Your task to perform on an android device: find which apps use the phone's location Image 0: 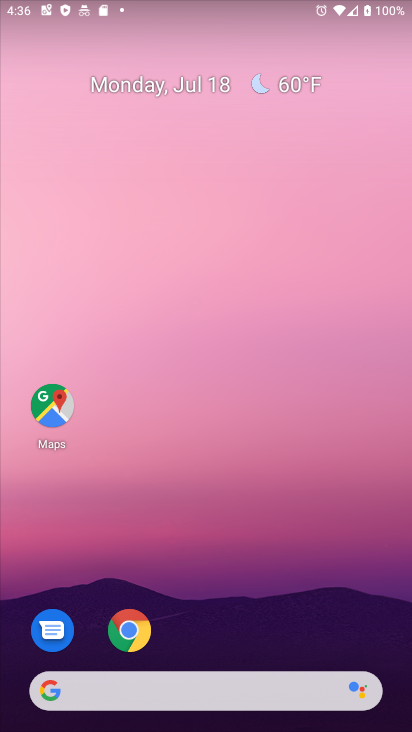
Step 0: drag from (312, 664) to (245, 185)
Your task to perform on an android device: find which apps use the phone's location Image 1: 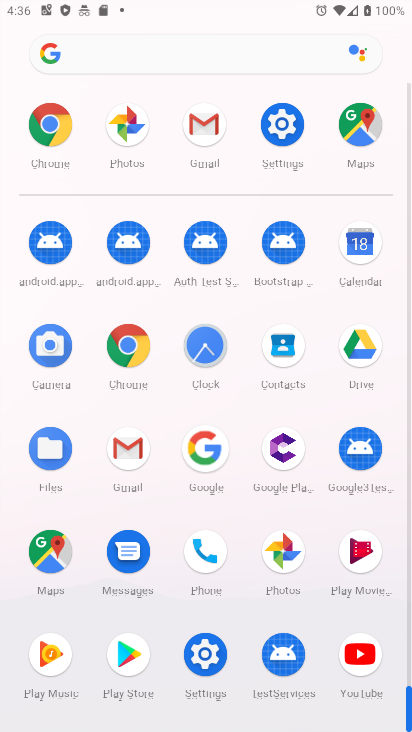
Step 1: click (292, 126)
Your task to perform on an android device: find which apps use the phone's location Image 2: 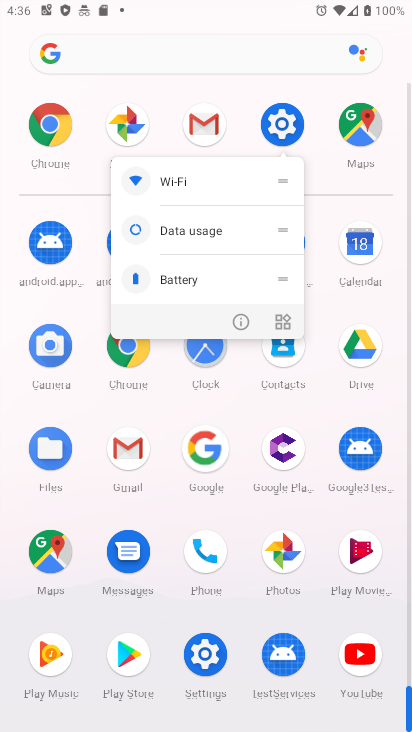
Step 2: click (275, 127)
Your task to perform on an android device: find which apps use the phone's location Image 3: 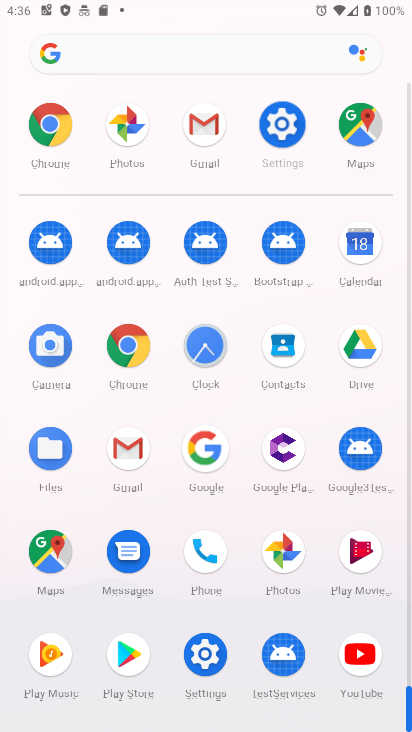
Step 3: click (275, 127)
Your task to perform on an android device: find which apps use the phone's location Image 4: 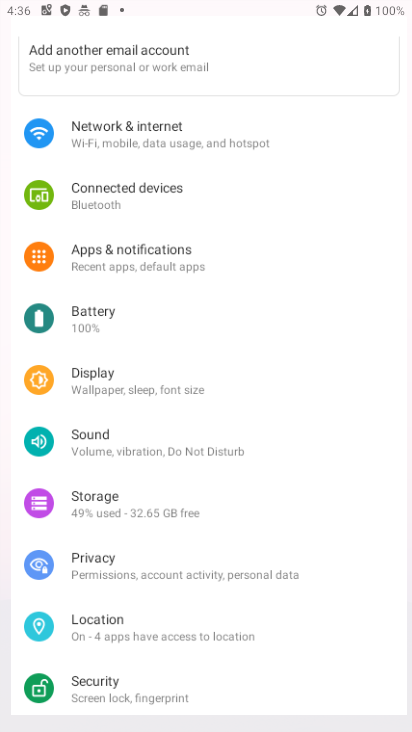
Step 4: click (281, 118)
Your task to perform on an android device: find which apps use the phone's location Image 5: 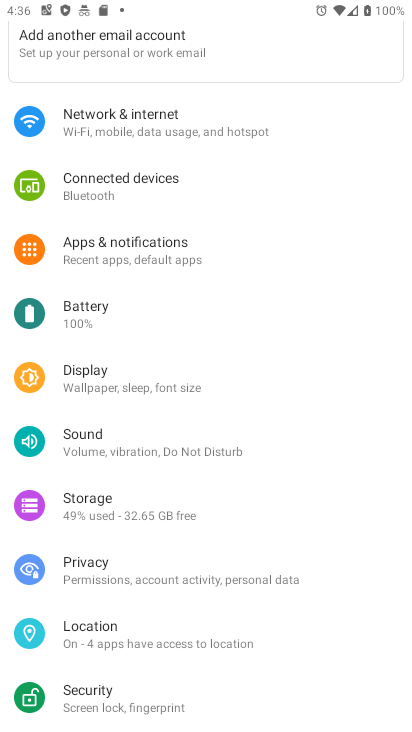
Step 5: click (281, 118)
Your task to perform on an android device: find which apps use the phone's location Image 6: 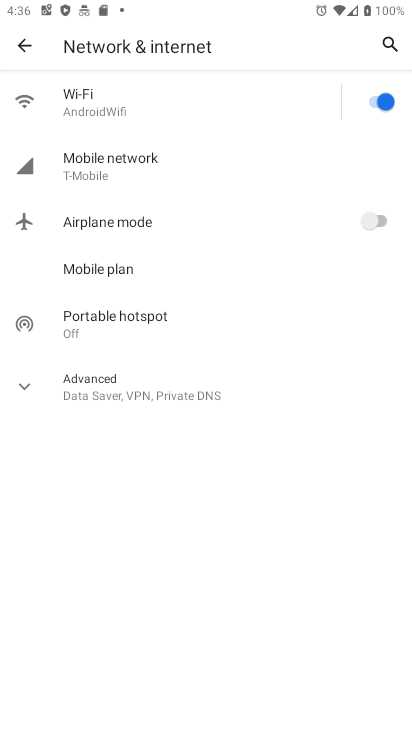
Step 6: click (11, 47)
Your task to perform on an android device: find which apps use the phone's location Image 7: 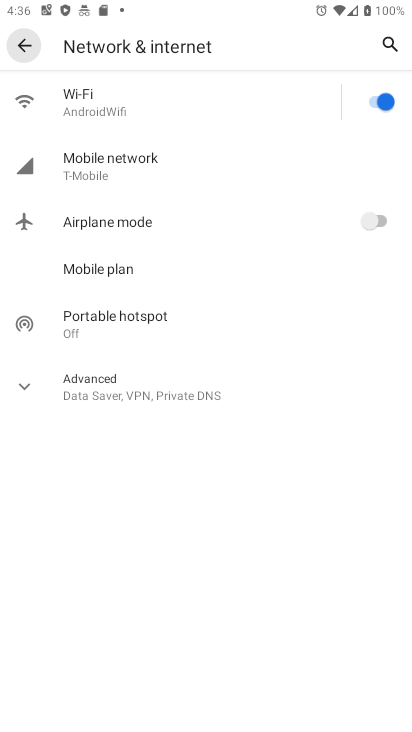
Step 7: click (10, 47)
Your task to perform on an android device: find which apps use the phone's location Image 8: 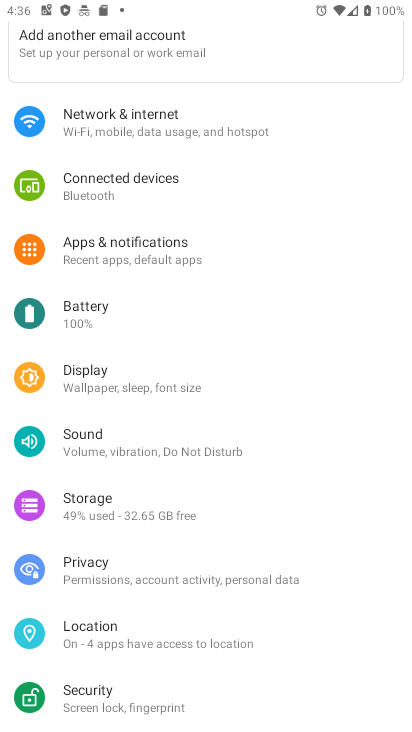
Step 8: click (86, 630)
Your task to perform on an android device: find which apps use the phone's location Image 9: 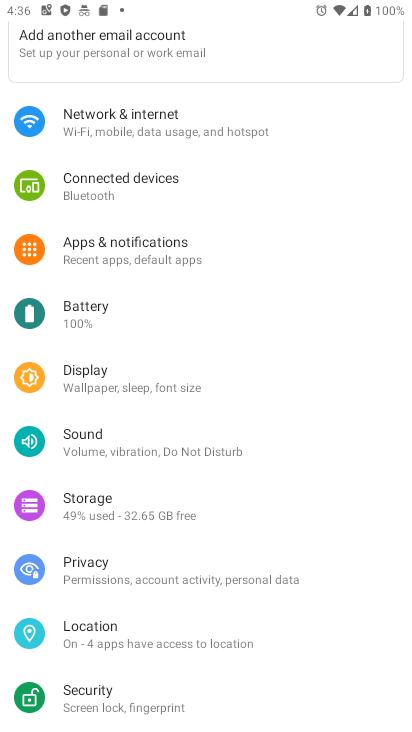
Step 9: click (89, 621)
Your task to perform on an android device: find which apps use the phone's location Image 10: 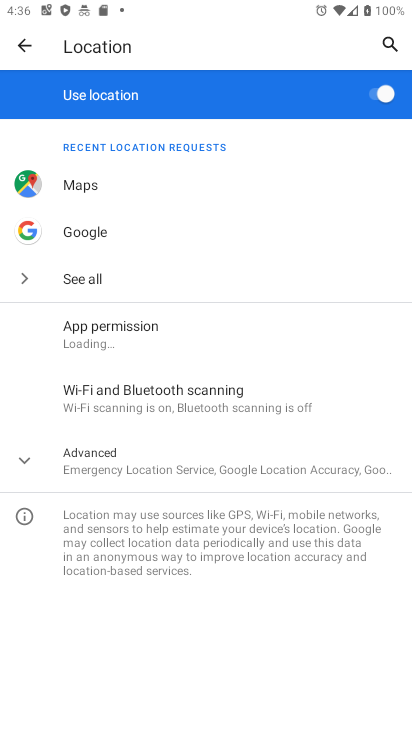
Step 10: click (106, 445)
Your task to perform on an android device: find which apps use the phone's location Image 11: 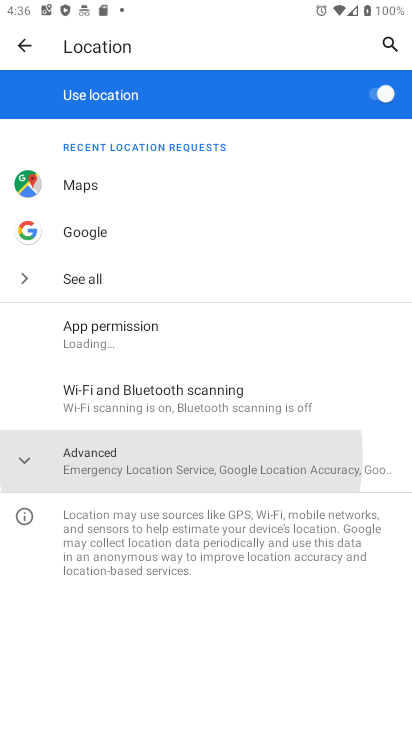
Step 11: click (115, 449)
Your task to perform on an android device: find which apps use the phone's location Image 12: 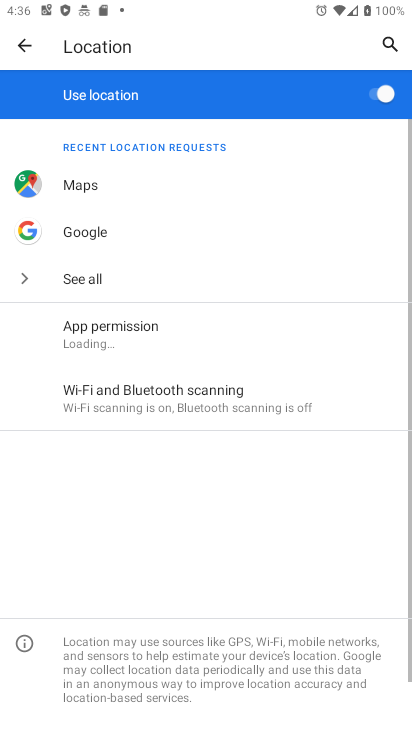
Step 12: click (160, 454)
Your task to perform on an android device: find which apps use the phone's location Image 13: 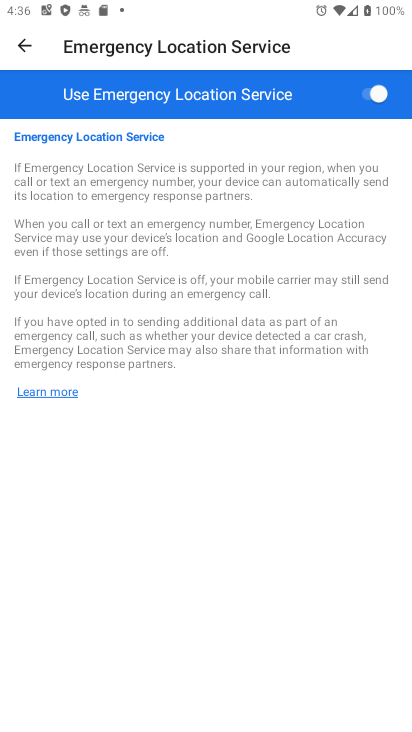
Step 13: click (27, 39)
Your task to perform on an android device: find which apps use the phone's location Image 14: 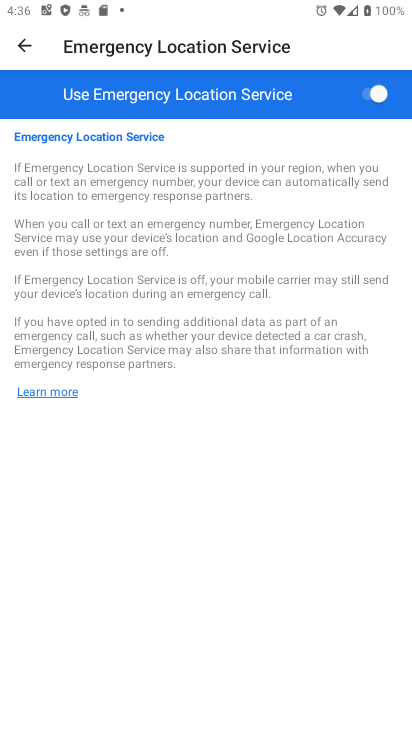
Step 14: click (29, 46)
Your task to perform on an android device: find which apps use the phone's location Image 15: 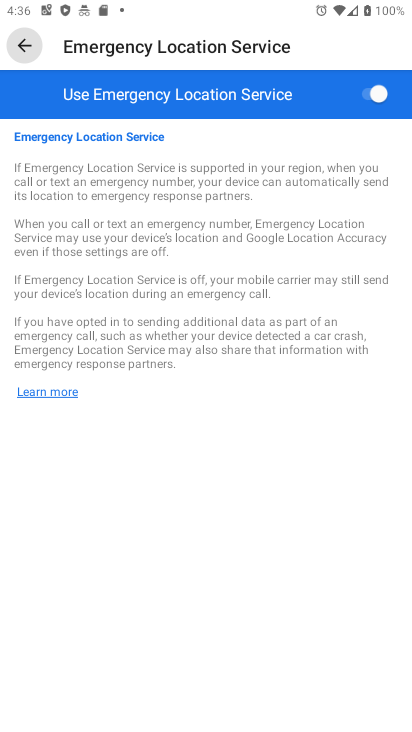
Step 15: click (29, 46)
Your task to perform on an android device: find which apps use the phone's location Image 16: 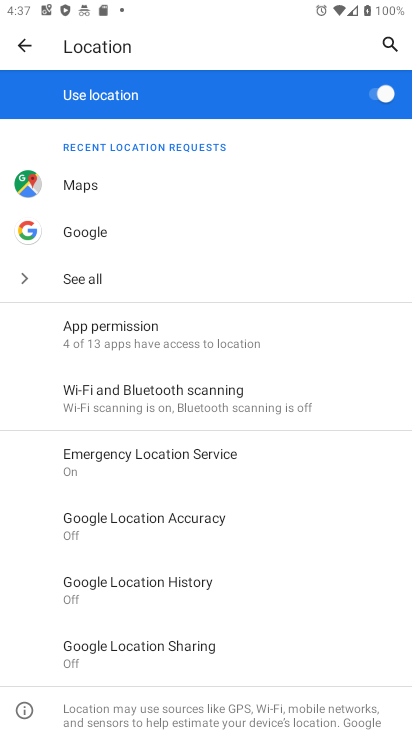
Step 16: click (131, 312)
Your task to perform on an android device: find which apps use the phone's location Image 17: 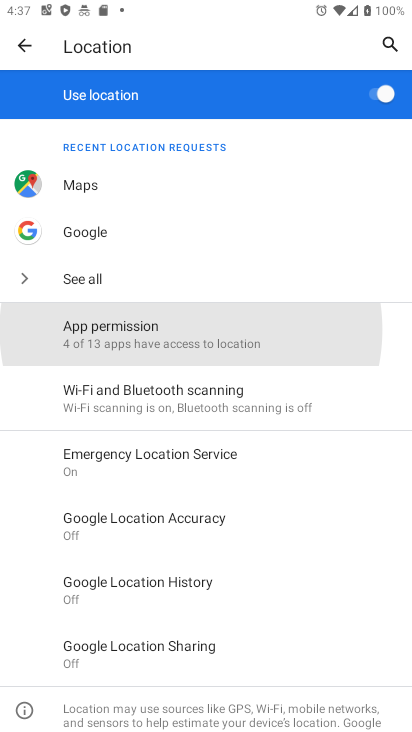
Step 17: click (131, 311)
Your task to perform on an android device: find which apps use the phone's location Image 18: 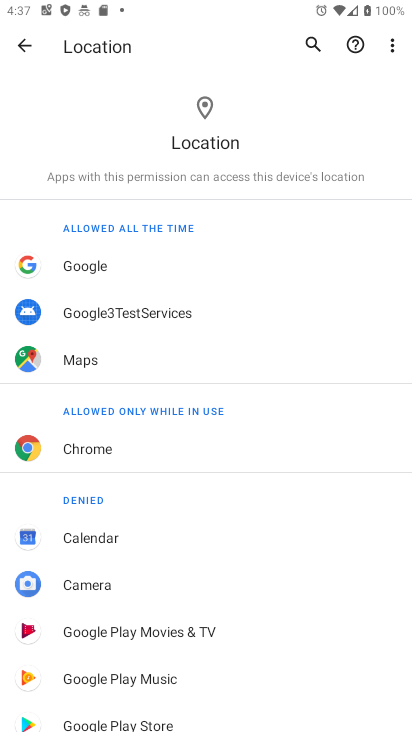
Step 18: click (22, 45)
Your task to perform on an android device: find which apps use the phone's location Image 19: 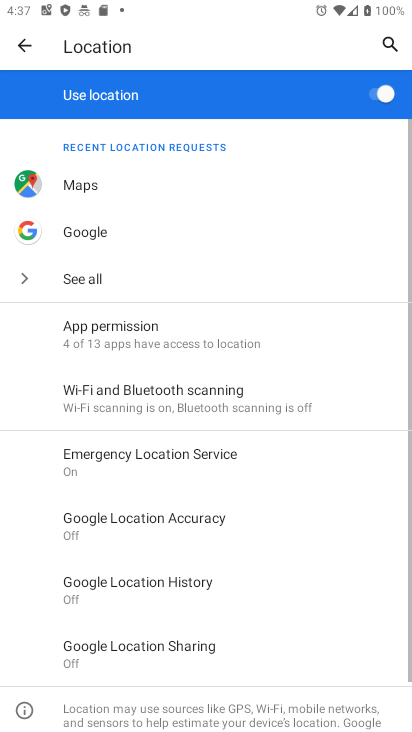
Step 19: task complete